Your task to perform on an android device: turn on location history Image 0: 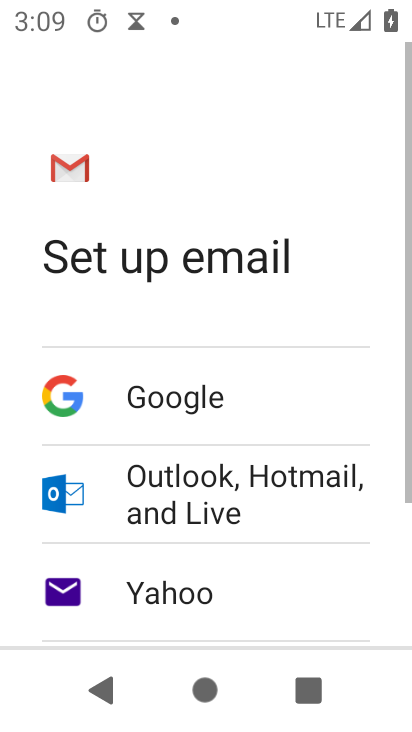
Step 0: press home button
Your task to perform on an android device: turn on location history Image 1: 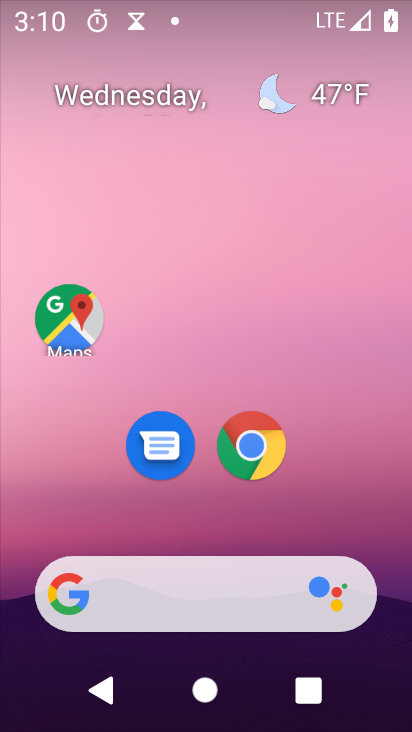
Step 1: click (57, 324)
Your task to perform on an android device: turn on location history Image 2: 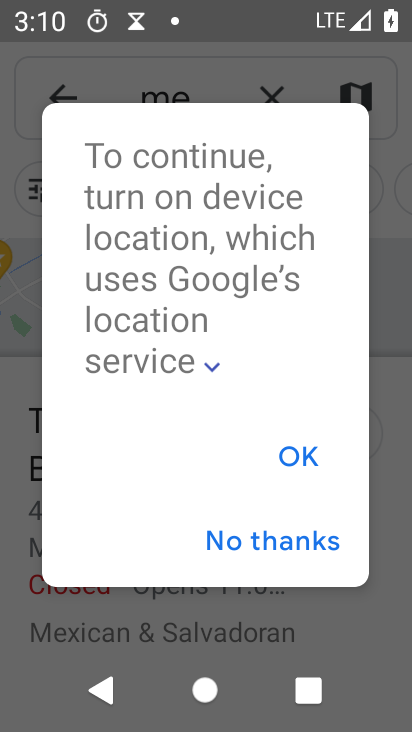
Step 2: click (277, 551)
Your task to perform on an android device: turn on location history Image 3: 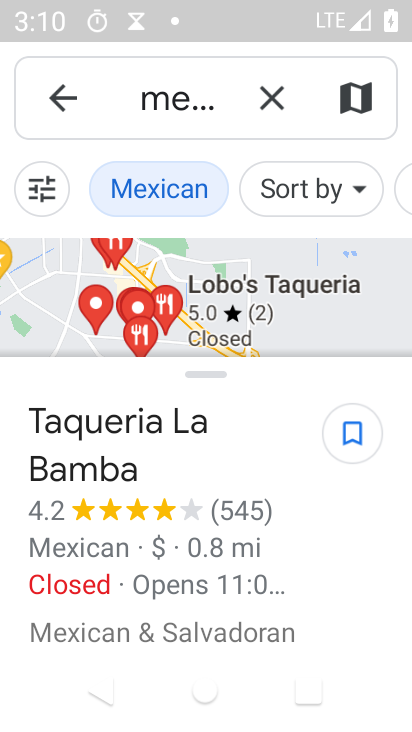
Step 3: click (263, 107)
Your task to perform on an android device: turn on location history Image 4: 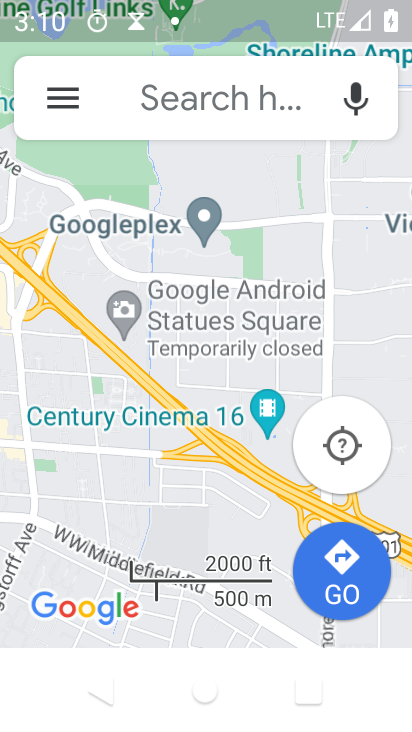
Step 4: click (74, 105)
Your task to perform on an android device: turn on location history Image 5: 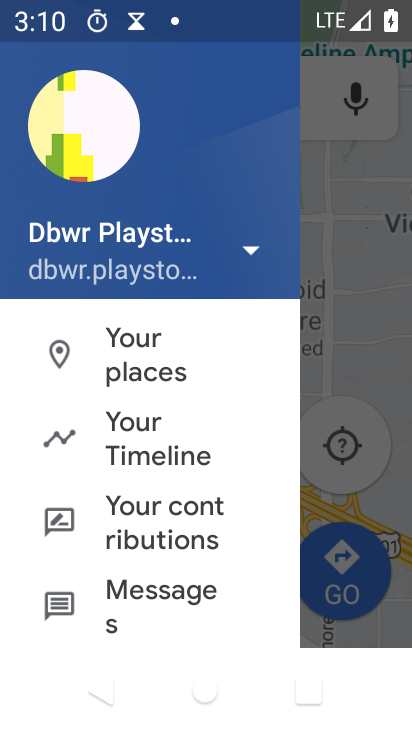
Step 5: click (144, 462)
Your task to perform on an android device: turn on location history Image 6: 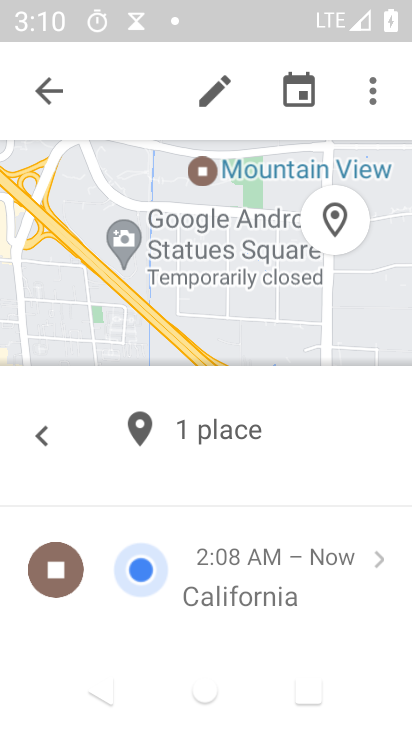
Step 6: click (371, 98)
Your task to perform on an android device: turn on location history Image 7: 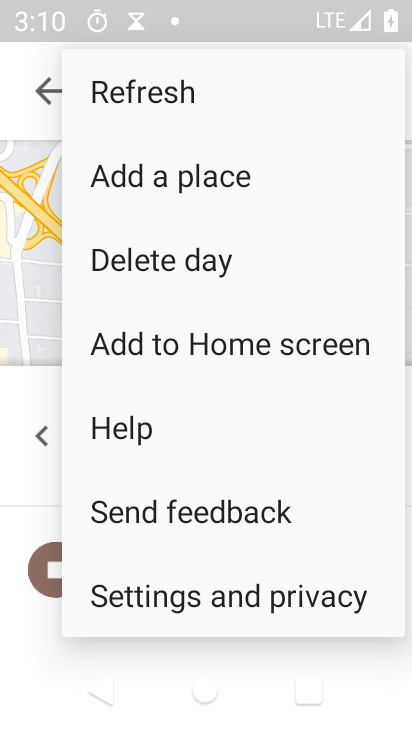
Step 7: click (220, 590)
Your task to perform on an android device: turn on location history Image 8: 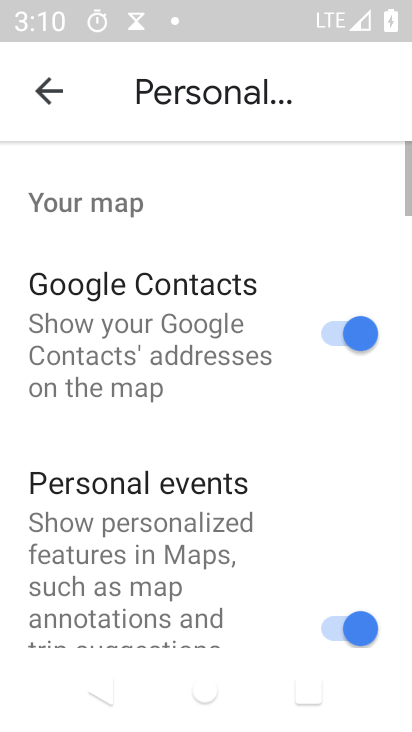
Step 8: drag from (220, 590) to (183, 65)
Your task to perform on an android device: turn on location history Image 9: 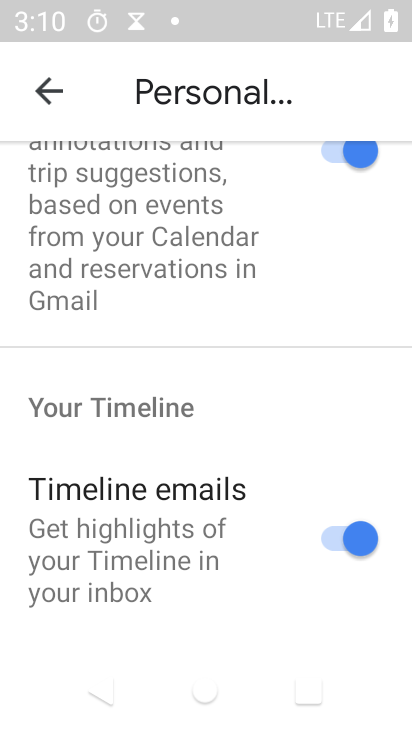
Step 9: drag from (209, 522) to (209, 24)
Your task to perform on an android device: turn on location history Image 10: 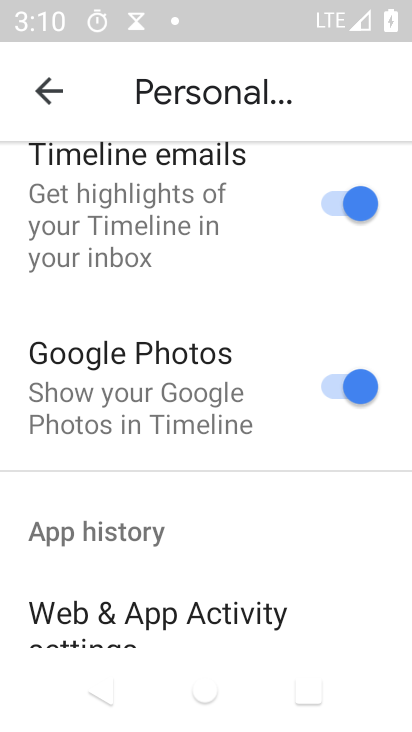
Step 10: drag from (236, 508) to (205, 5)
Your task to perform on an android device: turn on location history Image 11: 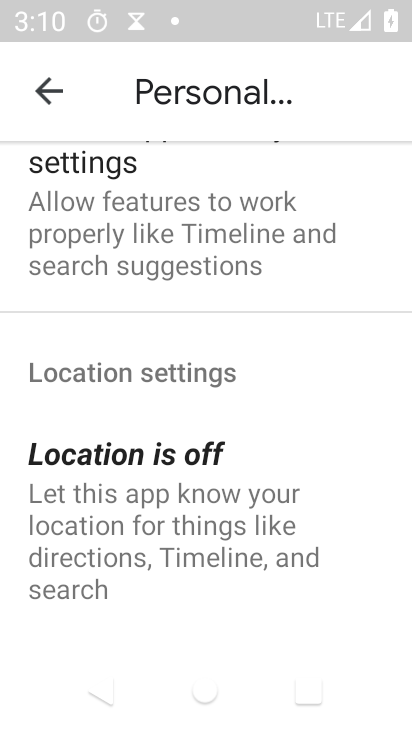
Step 11: drag from (241, 476) to (248, 132)
Your task to perform on an android device: turn on location history Image 12: 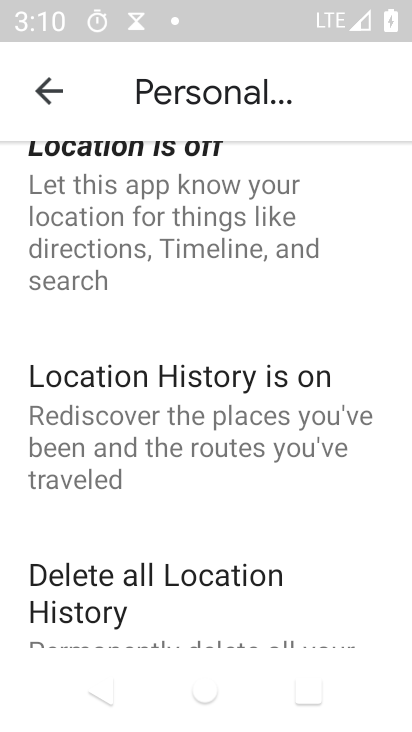
Step 12: click (169, 407)
Your task to perform on an android device: turn on location history Image 13: 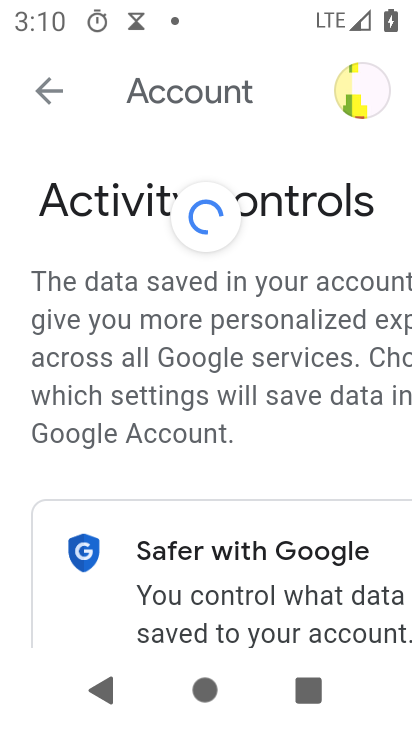
Step 13: task complete